Your task to perform on an android device: turn off priority inbox in the gmail app Image 0: 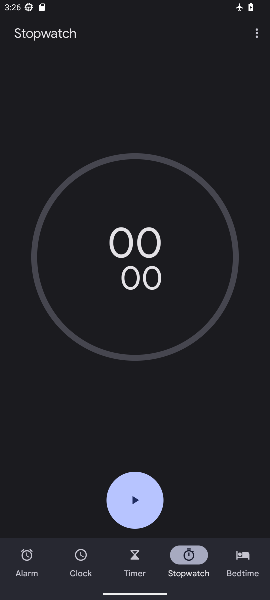
Step 0: press home button
Your task to perform on an android device: turn off priority inbox in the gmail app Image 1: 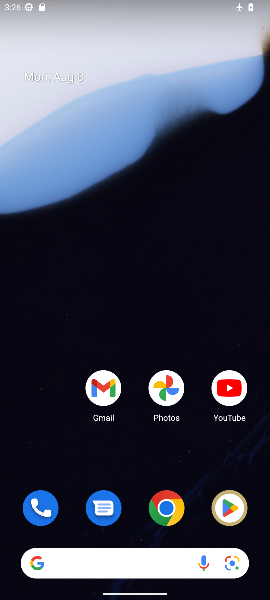
Step 1: click (99, 383)
Your task to perform on an android device: turn off priority inbox in the gmail app Image 2: 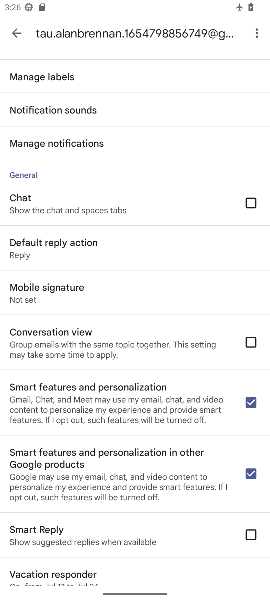
Step 2: click (13, 30)
Your task to perform on an android device: turn off priority inbox in the gmail app Image 3: 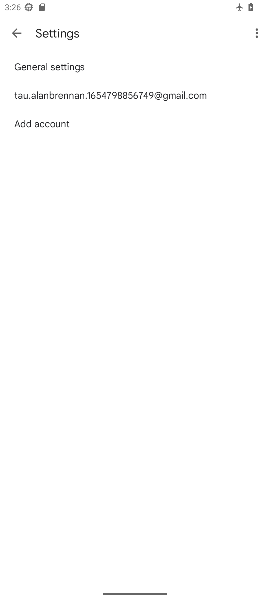
Step 3: click (53, 90)
Your task to perform on an android device: turn off priority inbox in the gmail app Image 4: 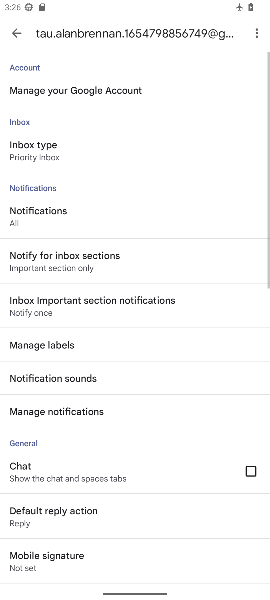
Step 4: click (28, 143)
Your task to perform on an android device: turn off priority inbox in the gmail app Image 5: 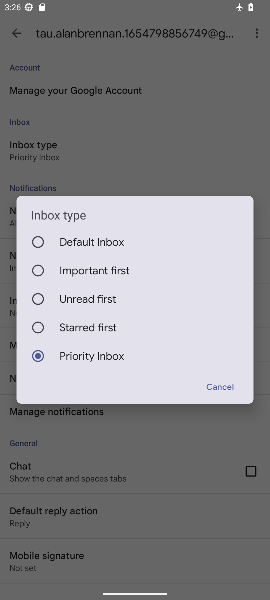
Step 5: click (34, 239)
Your task to perform on an android device: turn off priority inbox in the gmail app Image 6: 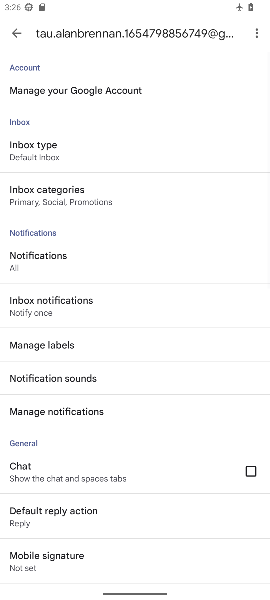
Step 6: task complete